Your task to perform on an android device: Open wifi settings Image 0: 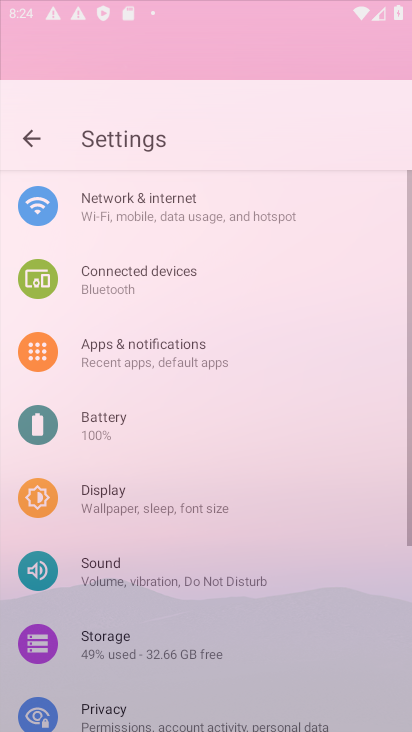
Step 0: press home button
Your task to perform on an android device: Open wifi settings Image 1: 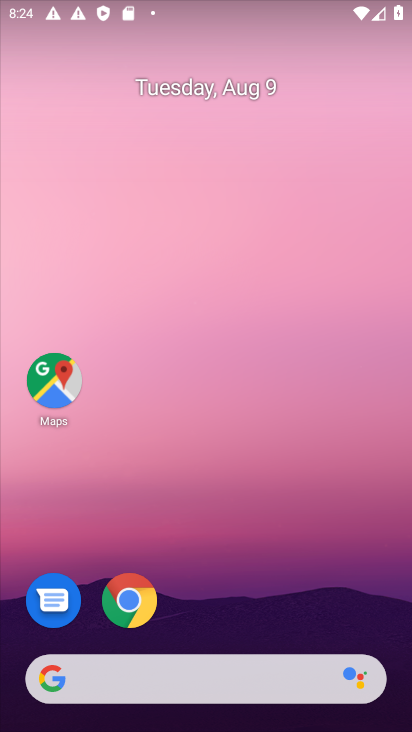
Step 1: drag from (247, 641) to (232, 193)
Your task to perform on an android device: Open wifi settings Image 2: 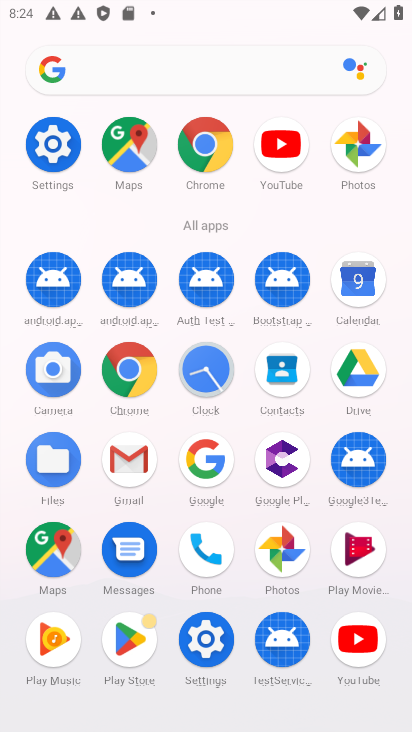
Step 2: click (48, 162)
Your task to perform on an android device: Open wifi settings Image 3: 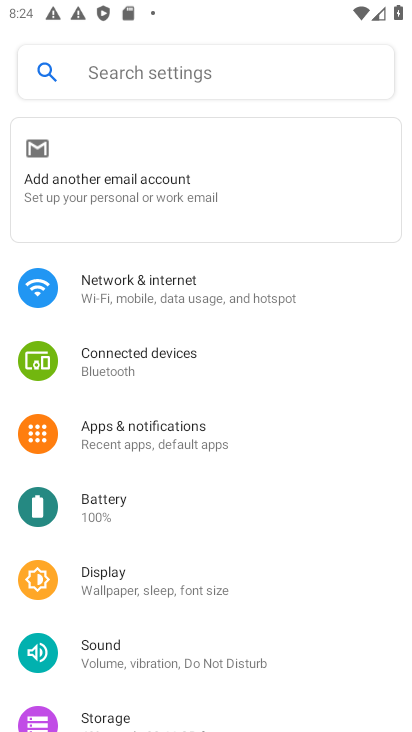
Step 3: click (165, 298)
Your task to perform on an android device: Open wifi settings Image 4: 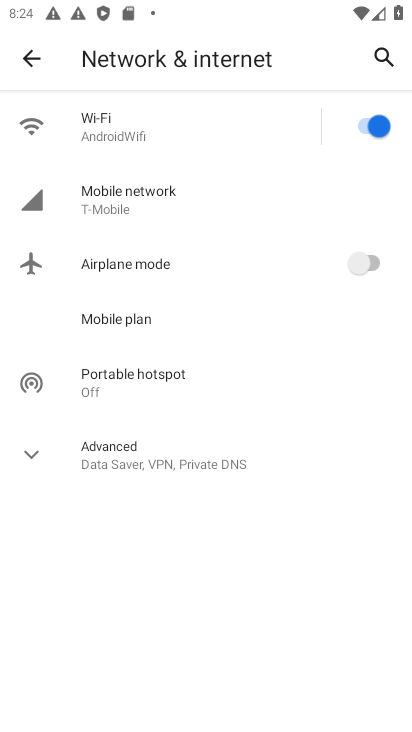
Step 4: click (104, 135)
Your task to perform on an android device: Open wifi settings Image 5: 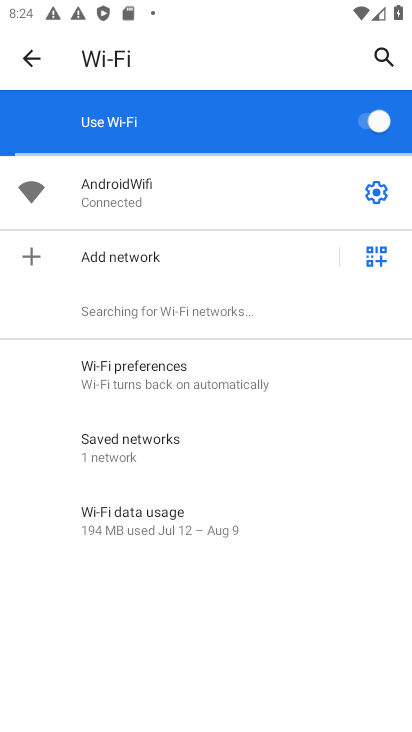
Step 5: click (113, 200)
Your task to perform on an android device: Open wifi settings Image 6: 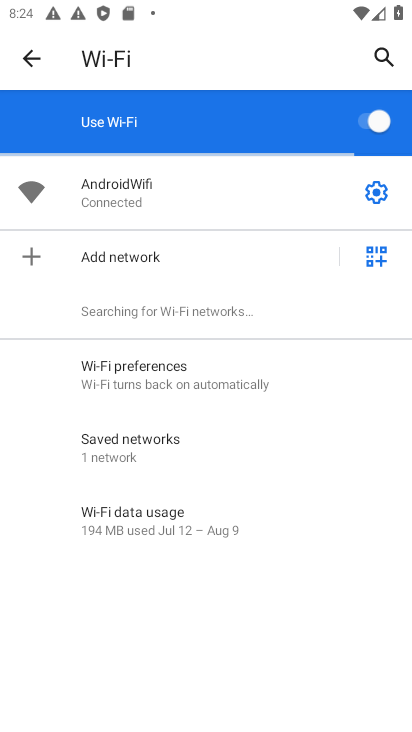
Step 6: click (373, 196)
Your task to perform on an android device: Open wifi settings Image 7: 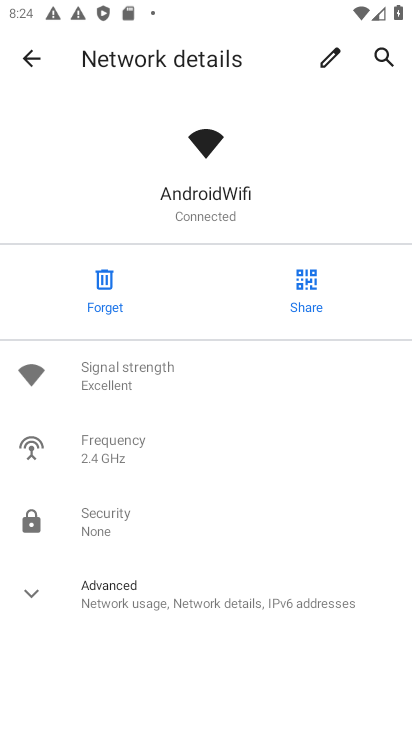
Step 7: task complete